Your task to perform on an android device: turn off translation in the chrome app Image 0: 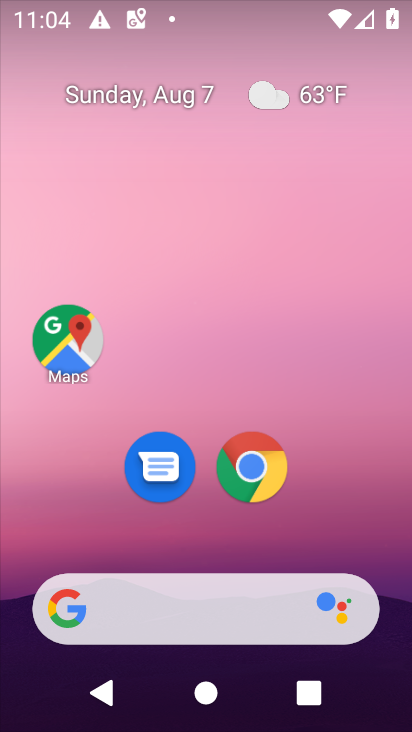
Step 0: drag from (240, 298) to (240, 19)
Your task to perform on an android device: turn off translation in the chrome app Image 1: 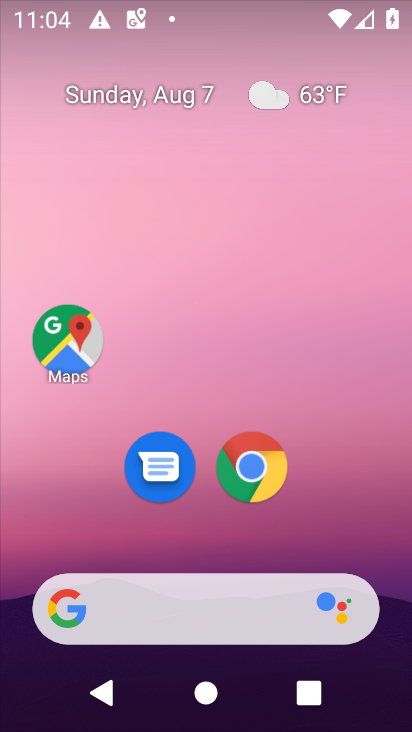
Step 1: drag from (310, 585) to (269, 184)
Your task to perform on an android device: turn off translation in the chrome app Image 2: 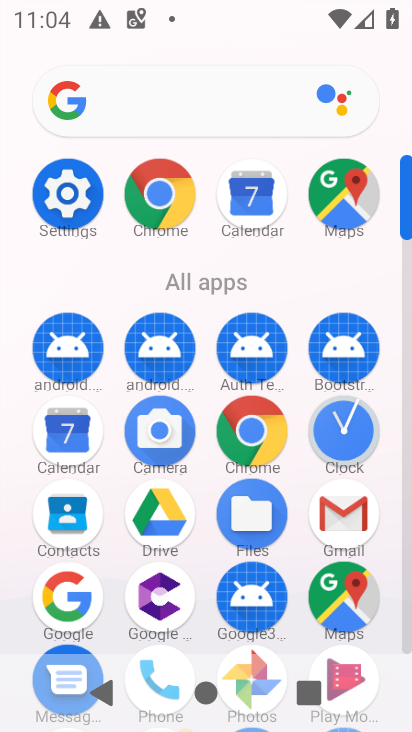
Step 2: click (170, 193)
Your task to perform on an android device: turn off translation in the chrome app Image 3: 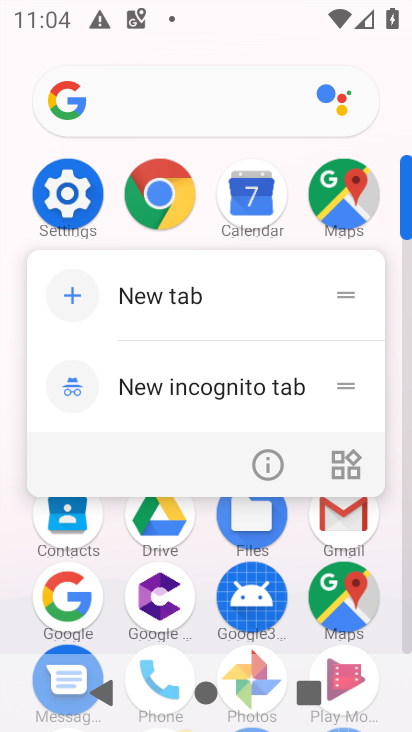
Step 3: click (152, 190)
Your task to perform on an android device: turn off translation in the chrome app Image 4: 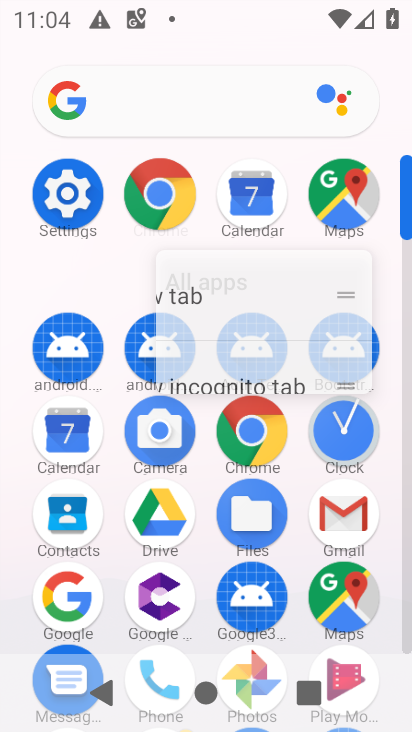
Step 4: click (154, 190)
Your task to perform on an android device: turn off translation in the chrome app Image 5: 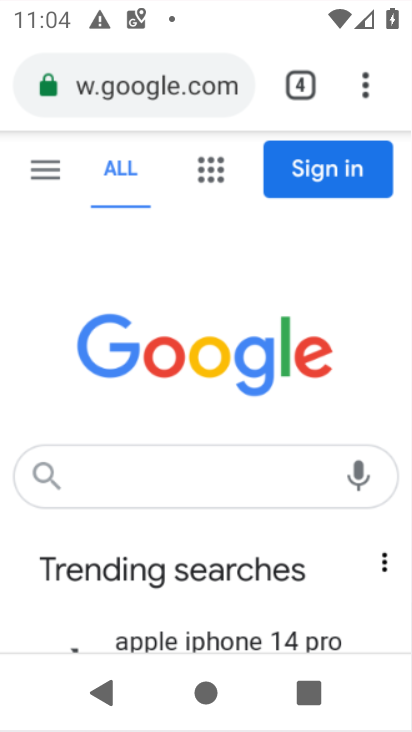
Step 5: click (156, 190)
Your task to perform on an android device: turn off translation in the chrome app Image 6: 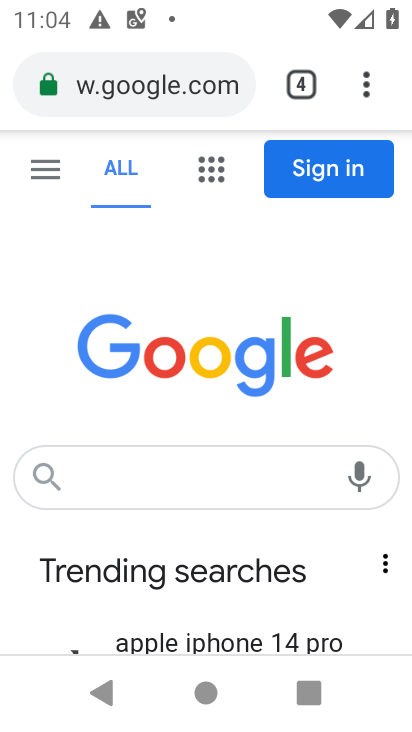
Step 6: press back button
Your task to perform on an android device: turn off translation in the chrome app Image 7: 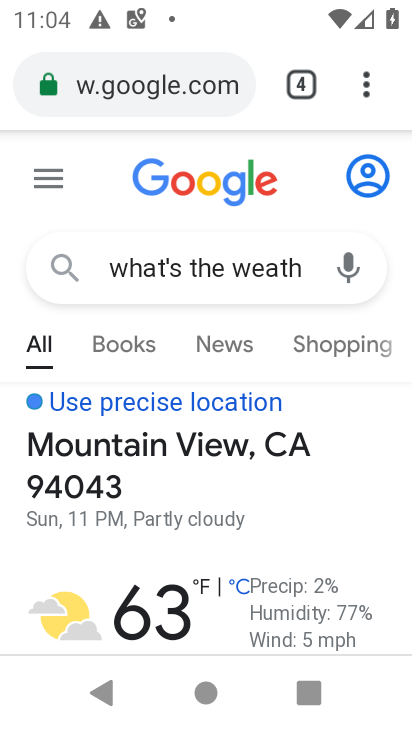
Step 7: drag from (373, 86) to (117, 514)
Your task to perform on an android device: turn off translation in the chrome app Image 8: 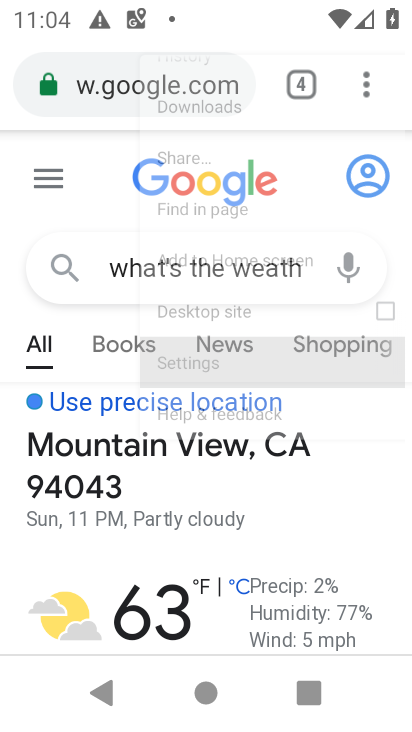
Step 8: click (125, 512)
Your task to perform on an android device: turn off translation in the chrome app Image 9: 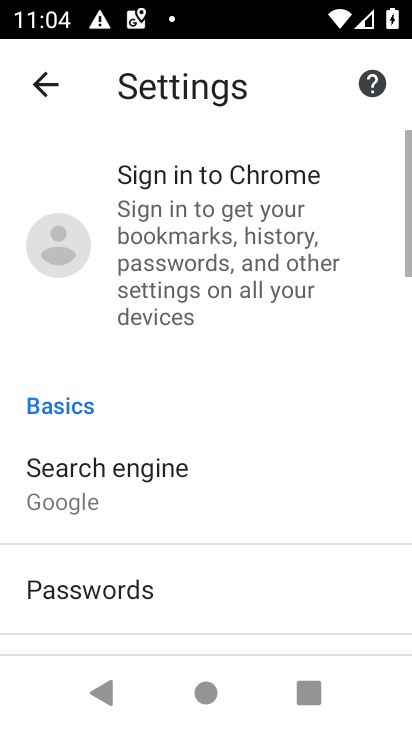
Step 9: drag from (287, 511) to (216, 92)
Your task to perform on an android device: turn off translation in the chrome app Image 10: 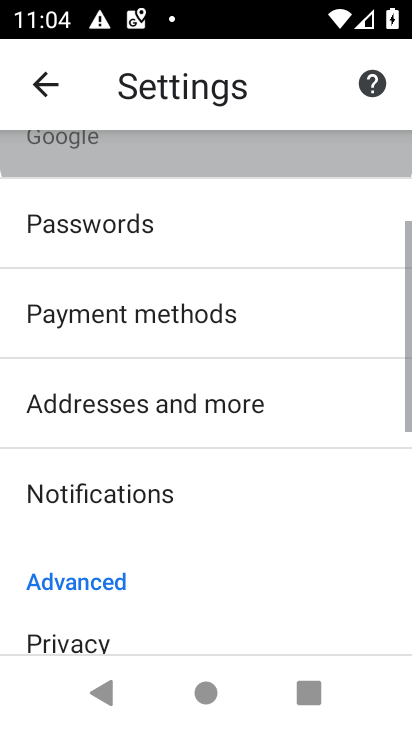
Step 10: click (321, 179)
Your task to perform on an android device: turn off translation in the chrome app Image 11: 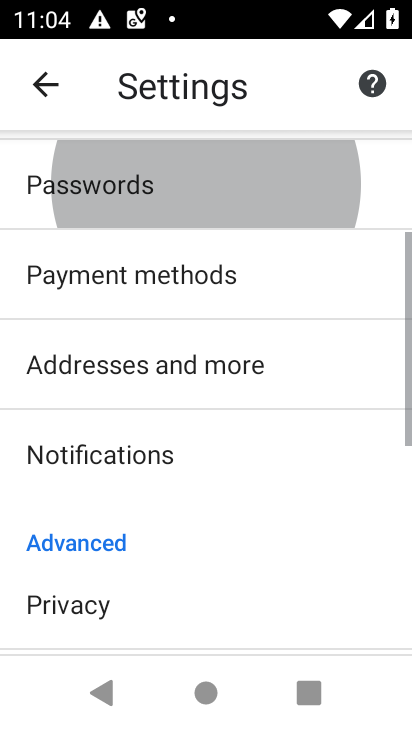
Step 11: drag from (252, 509) to (186, 231)
Your task to perform on an android device: turn off translation in the chrome app Image 12: 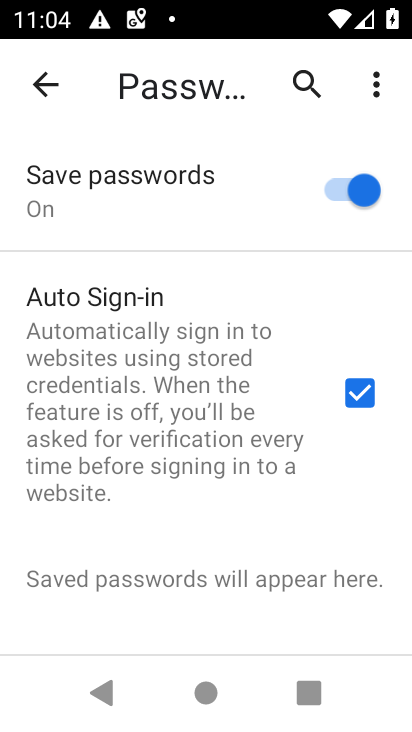
Step 12: drag from (251, 483) to (238, 154)
Your task to perform on an android device: turn off translation in the chrome app Image 13: 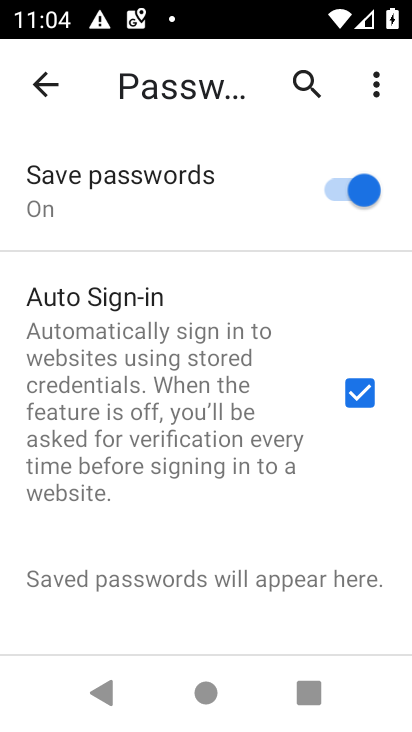
Step 13: drag from (245, 550) to (261, 180)
Your task to perform on an android device: turn off translation in the chrome app Image 14: 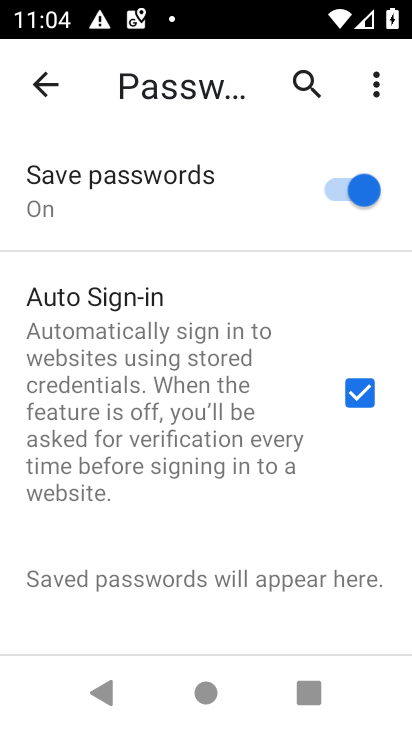
Step 14: drag from (207, 472) to (196, 159)
Your task to perform on an android device: turn off translation in the chrome app Image 15: 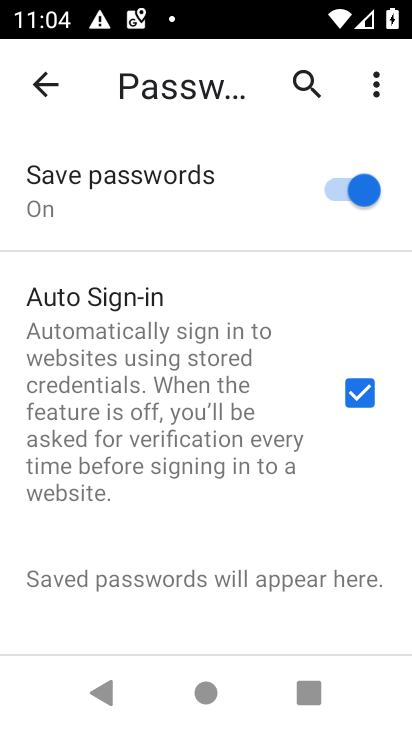
Step 15: drag from (238, 467) to (231, 269)
Your task to perform on an android device: turn off translation in the chrome app Image 16: 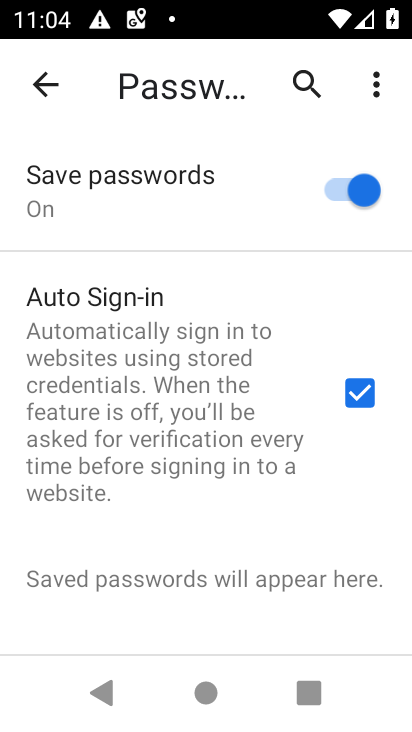
Step 16: drag from (242, 262) to (251, 466)
Your task to perform on an android device: turn off translation in the chrome app Image 17: 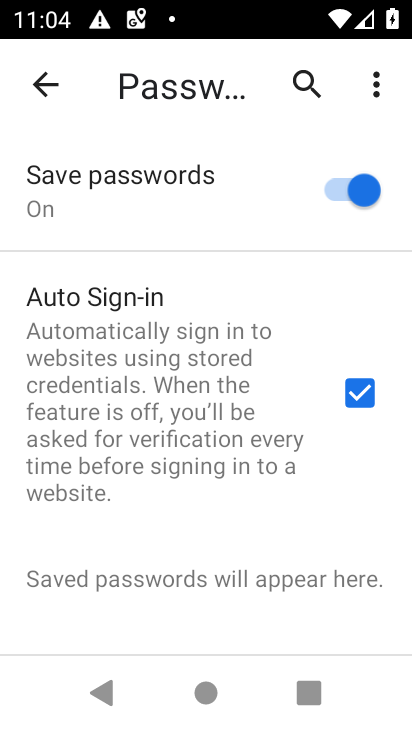
Step 17: click (280, 425)
Your task to perform on an android device: turn off translation in the chrome app Image 18: 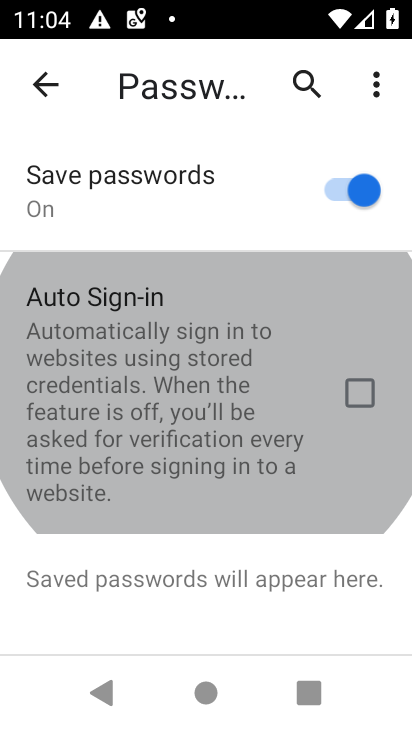
Step 18: drag from (272, 343) to (262, 474)
Your task to perform on an android device: turn off translation in the chrome app Image 19: 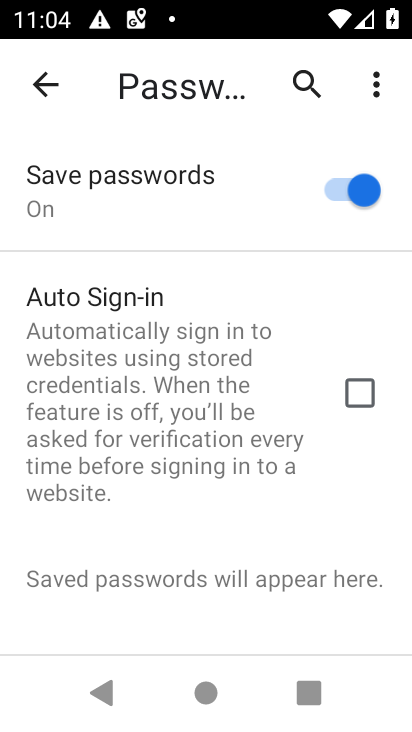
Step 19: drag from (222, 288) to (221, 388)
Your task to perform on an android device: turn off translation in the chrome app Image 20: 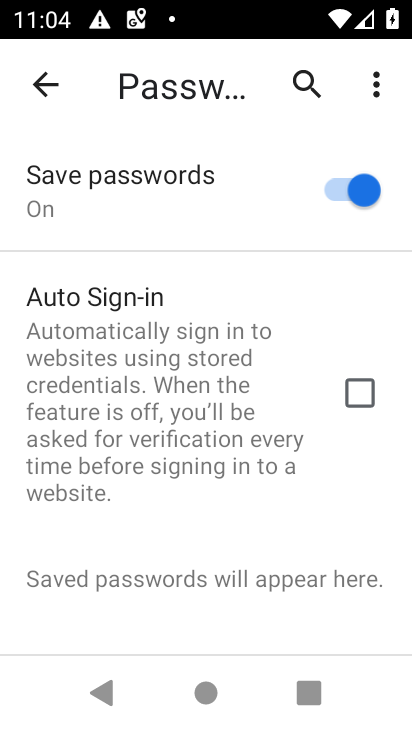
Step 20: click (38, 81)
Your task to perform on an android device: turn off translation in the chrome app Image 21: 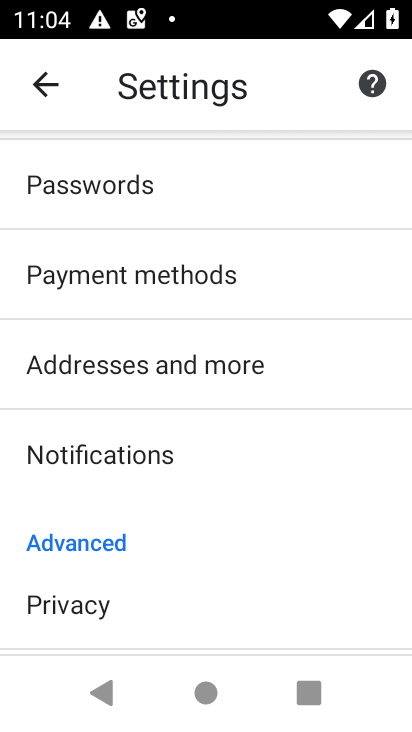
Step 21: drag from (164, 561) to (126, 295)
Your task to perform on an android device: turn off translation in the chrome app Image 22: 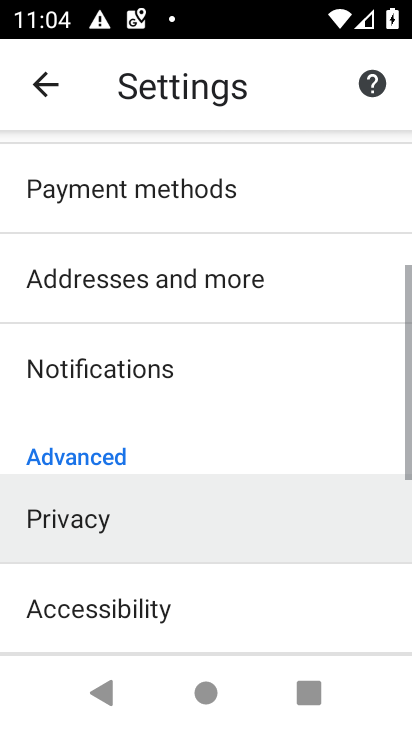
Step 22: drag from (165, 485) to (173, 380)
Your task to perform on an android device: turn off translation in the chrome app Image 23: 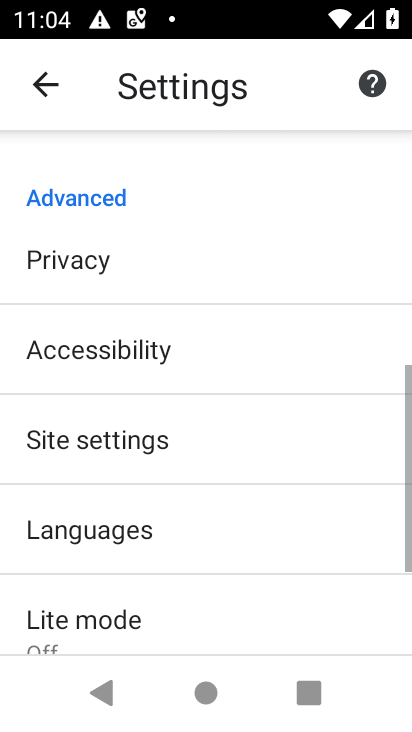
Step 23: drag from (220, 520) to (231, 410)
Your task to perform on an android device: turn off translation in the chrome app Image 24: 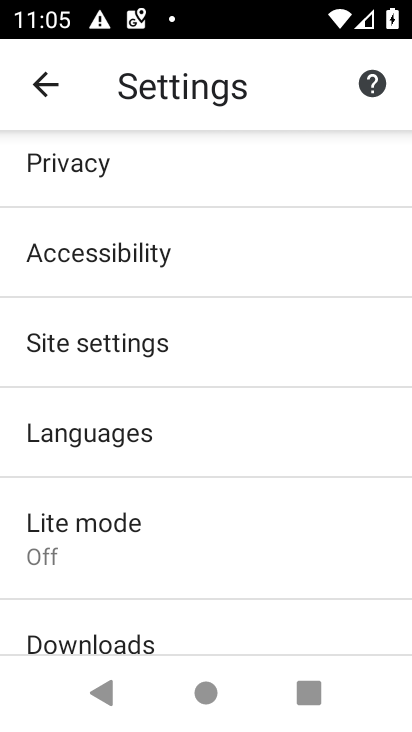
Step 24: click (196, 439)
Your task to perform on an android device: turn off translation in the chrome app Image 25: 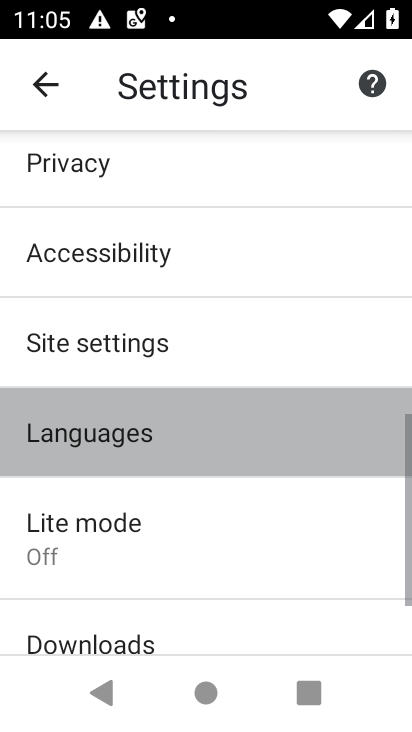
Step 25: click (199, 439)
Your task to perform on an android device: turn off translation in the chrome app Image 26: 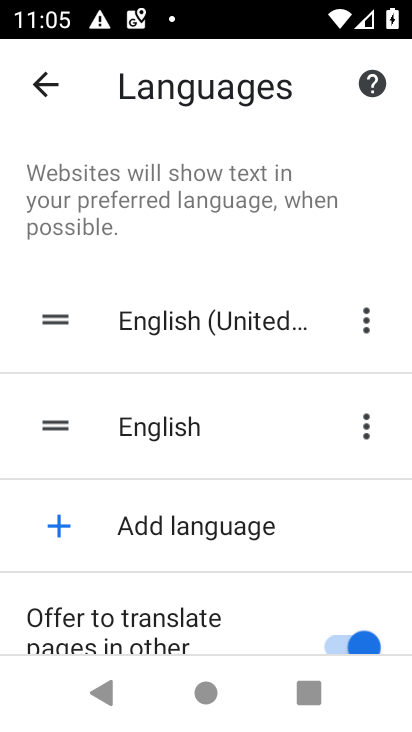
Step 26: drag from (216, 524) to (153, 269)
Your task to perform on an android device: turn off translation in the chrome app Image 27: 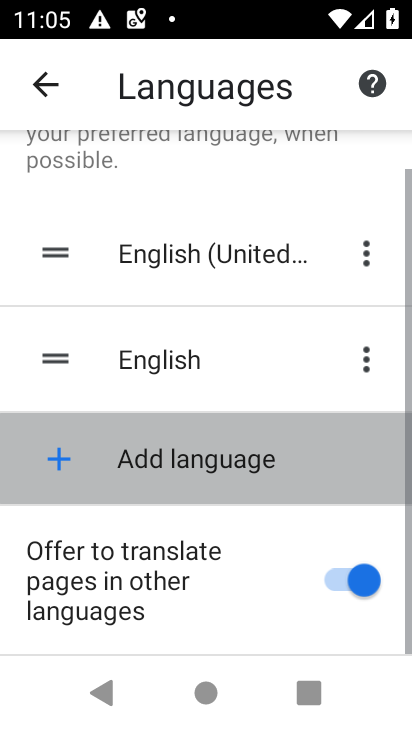
Step 27: drag from (226, 497) to (249, 375)
Your task to perform on an android device: turn off translation in the chrome app Image 28: 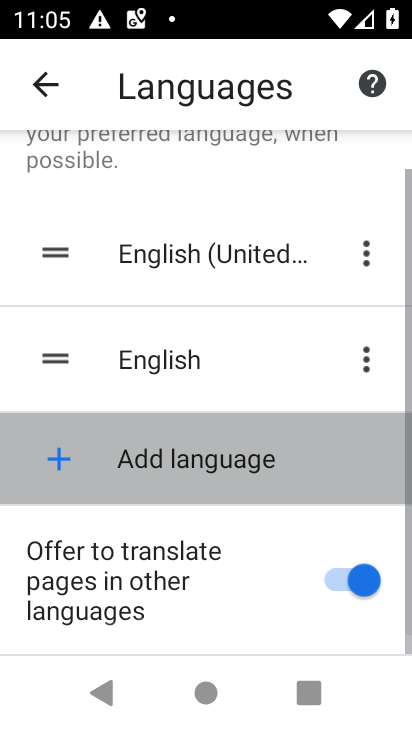
Step 28: drag from (272, 478) to (271, 364)
Your task to perform on an android device: turn off translation in the chrome app Image 29: 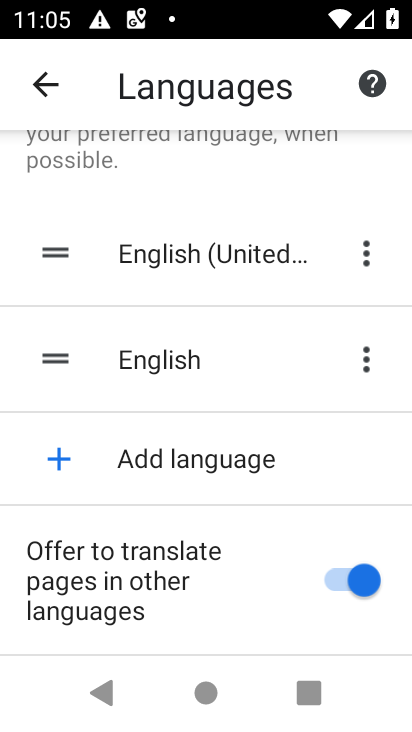
Step 29: click (359, 579)
Your task to perform on an android device: turn off translation in the chrome app Image 30: 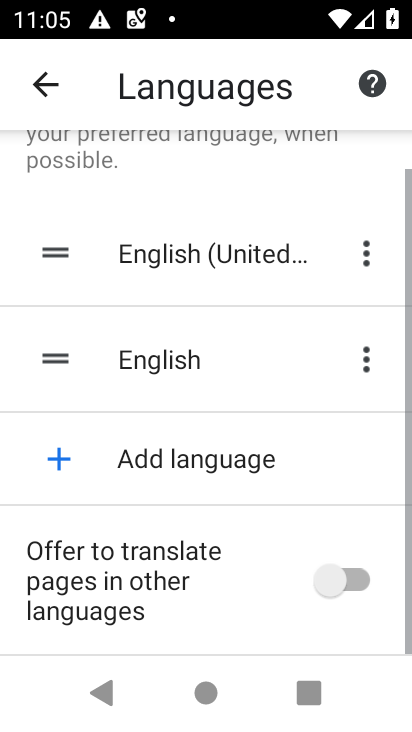
Step 30: task complete